Your task to perform on an android device: Go to network settings Image 0: 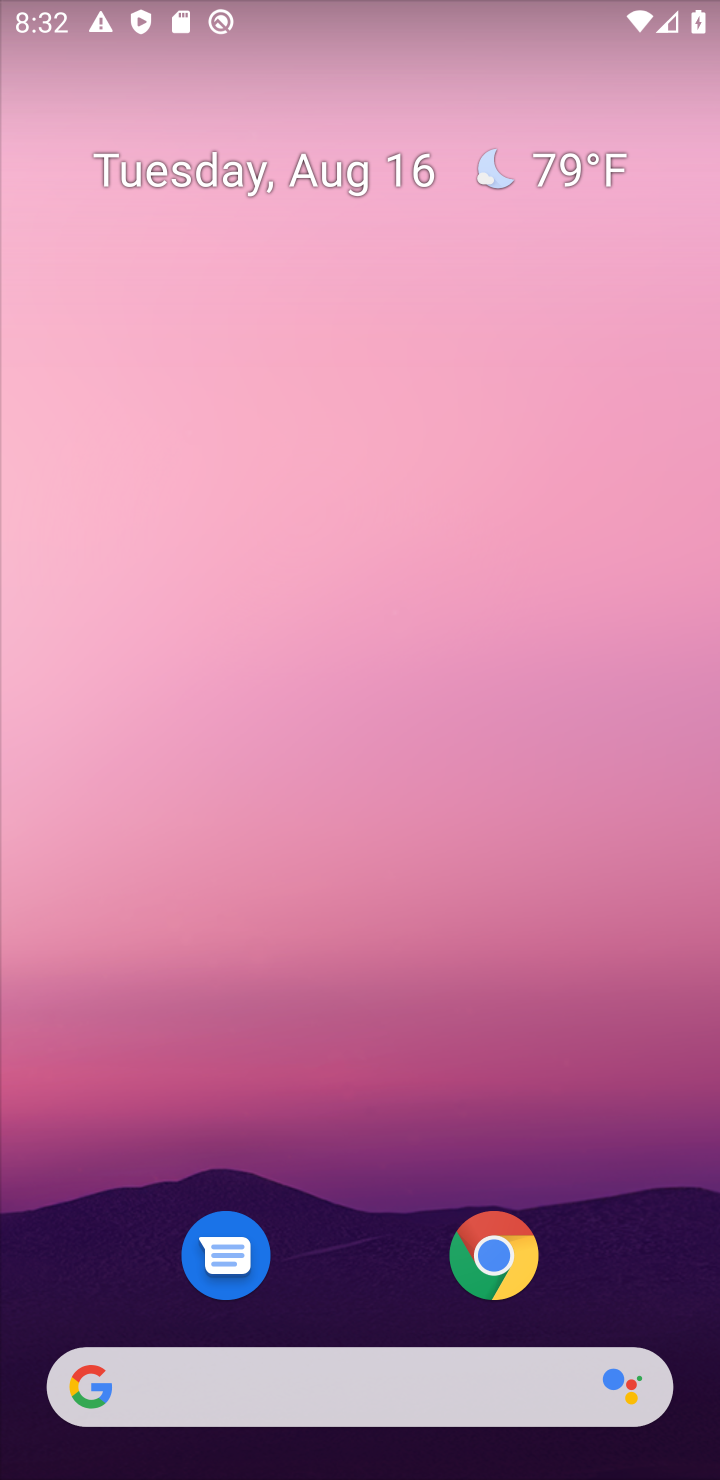
Step 0: drag from (372, 1374) to (429, 446)
Your task to perform on an android device: Go to network settings Image 1: 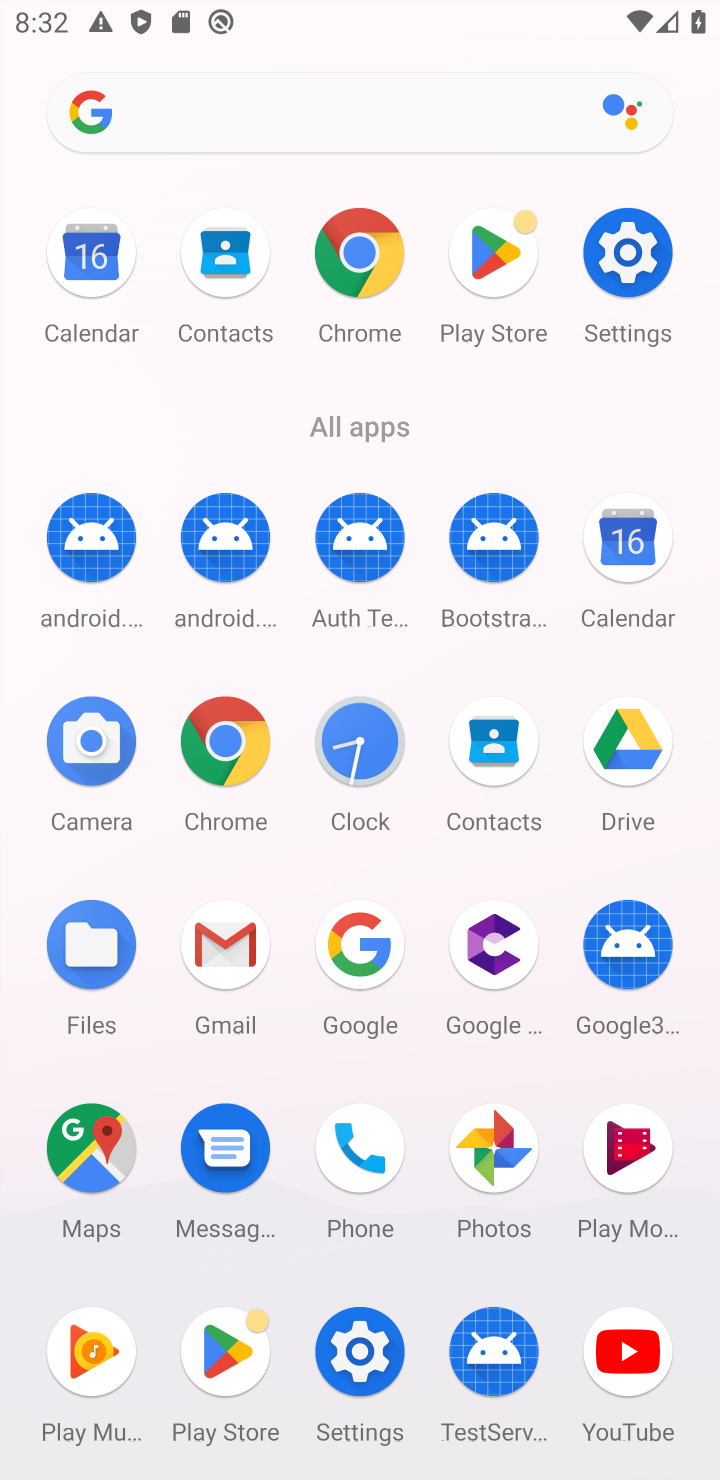
Step 1: click (643, 265)
Your task to perform on an android device: Go to network settings Image 2: 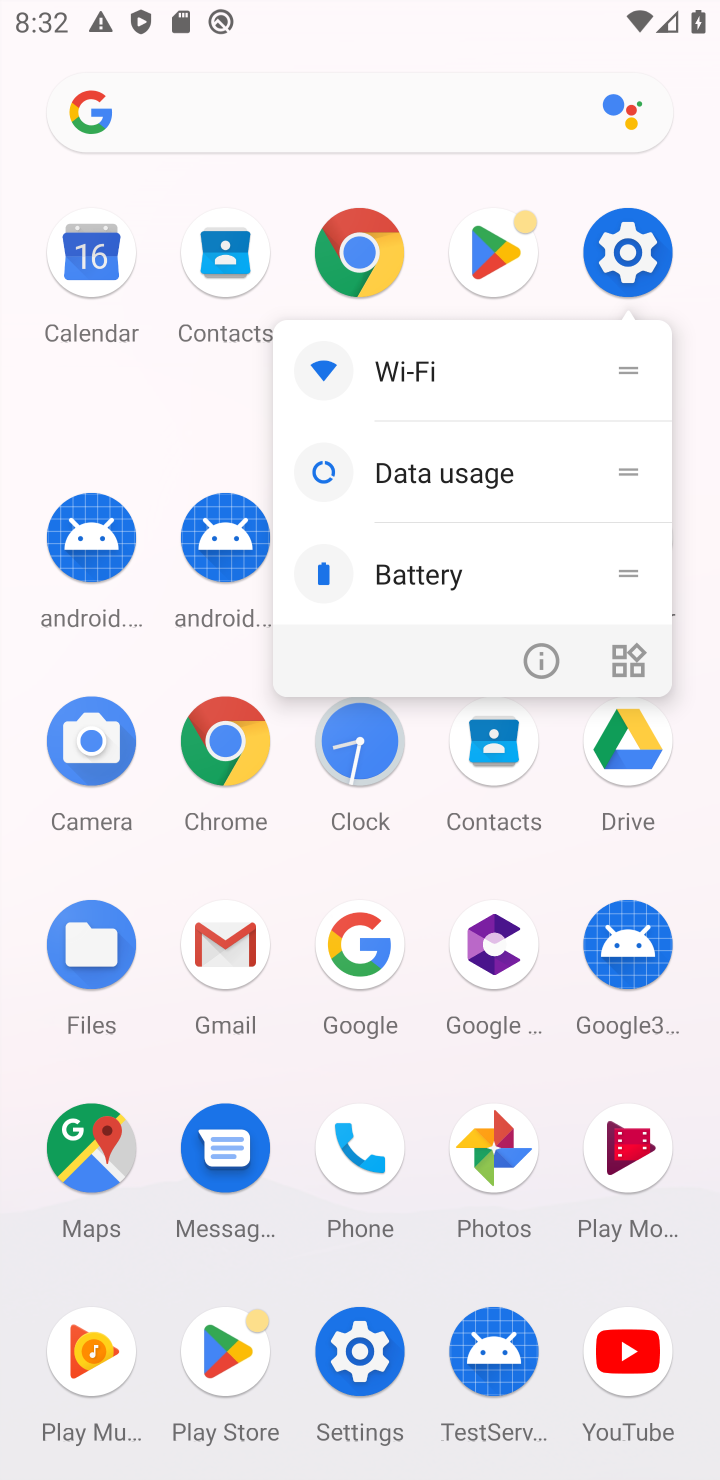
Step 2: click (643, 265)
Your task to perform on an android device: Go to network settings Image 3: 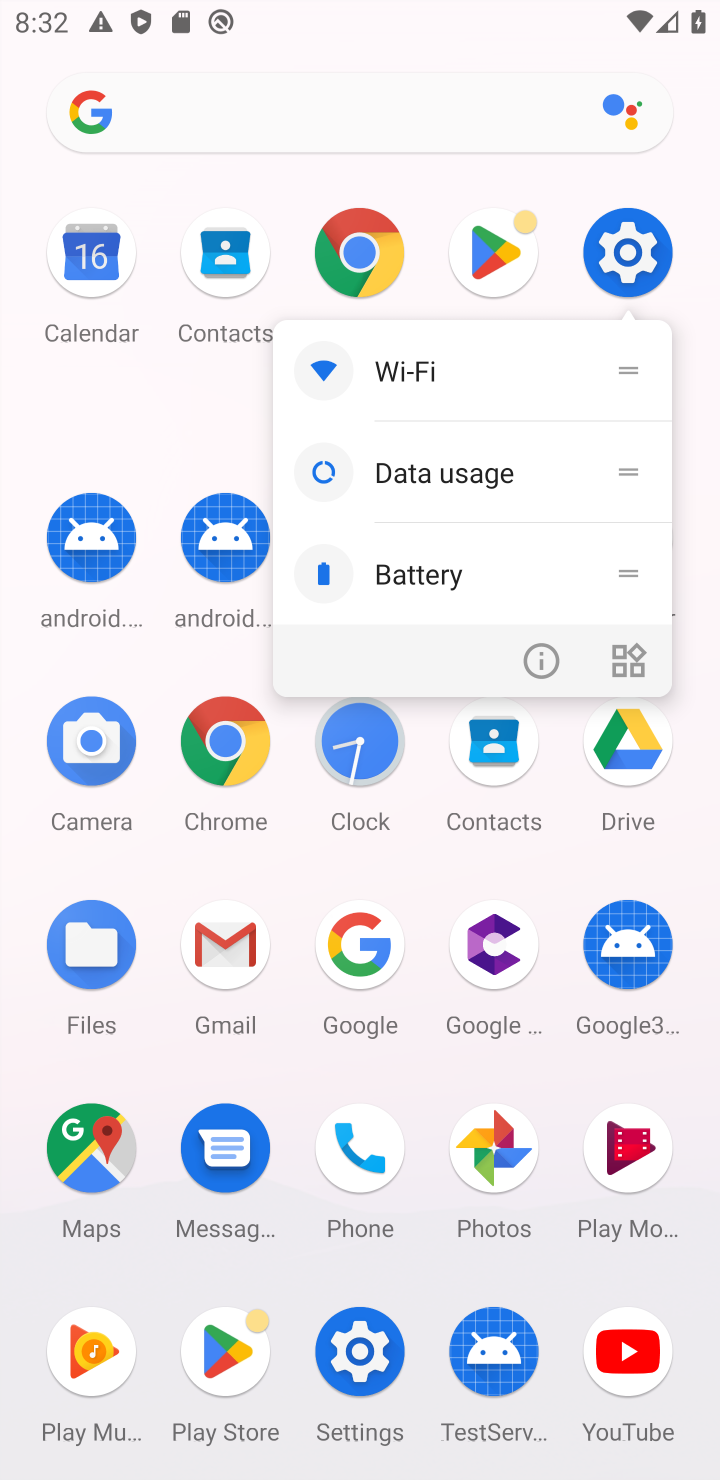
Step 3: click (643, 265)
Your task to perform on an android device: Go to network settings Image 4: 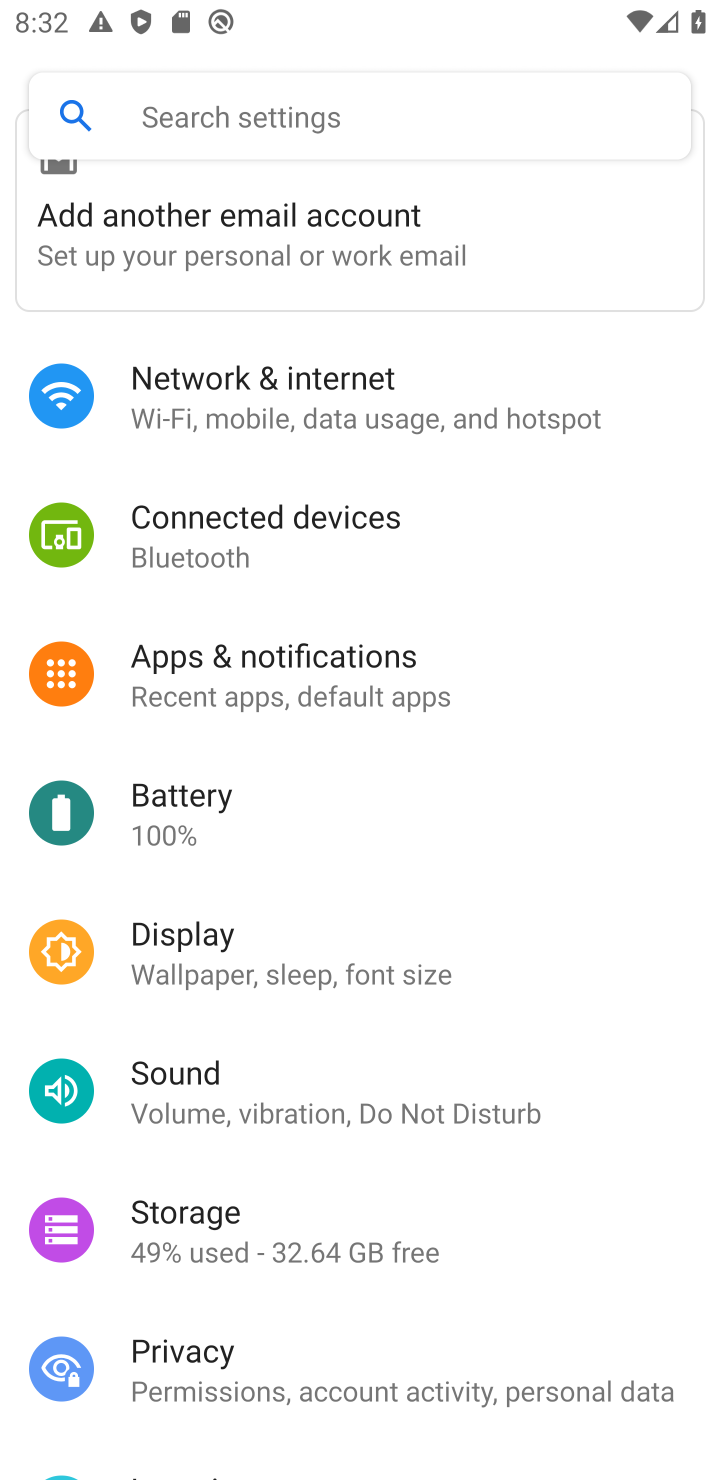
Step 4: click (263, 415)
Your task to perform on an android device: Go to network settings Image 5: 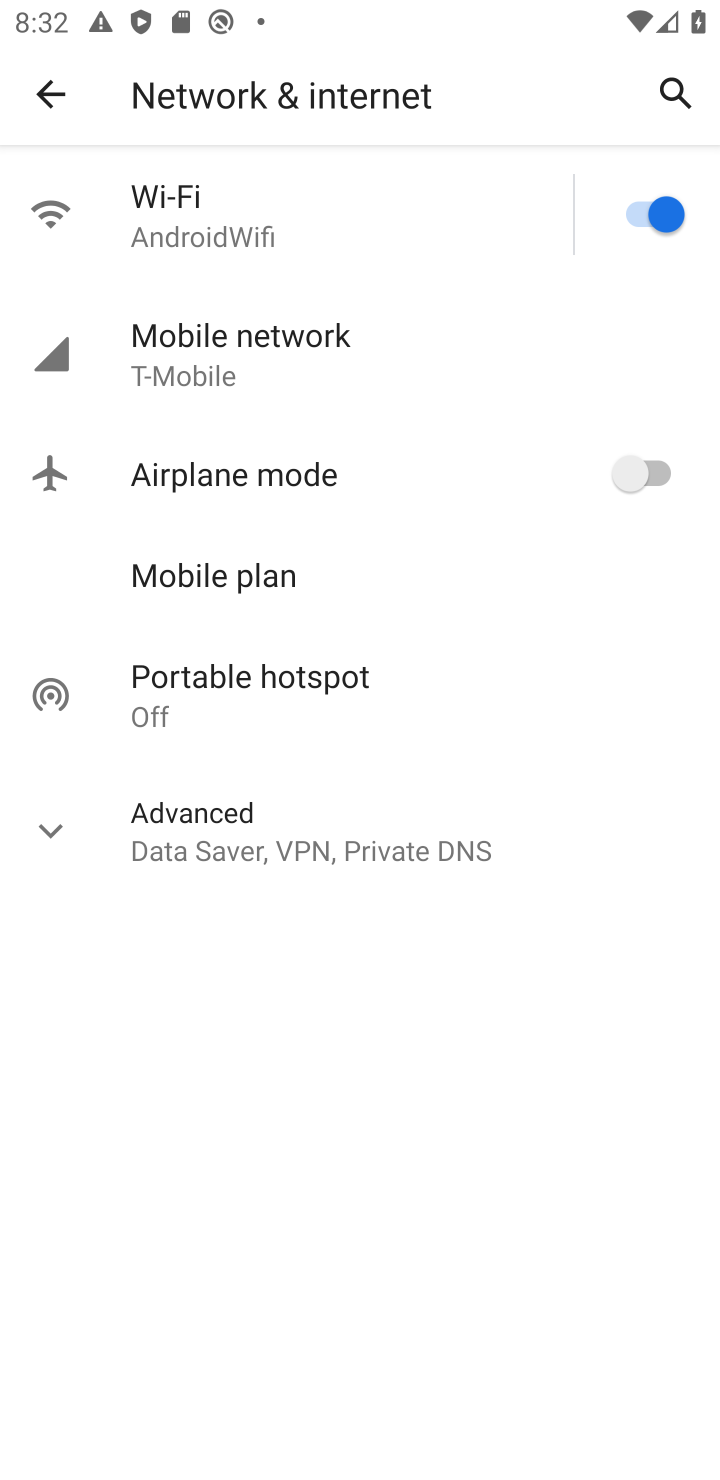
Step 5: task complete